Your task to perform on an android device: Open my contact list Image 0: 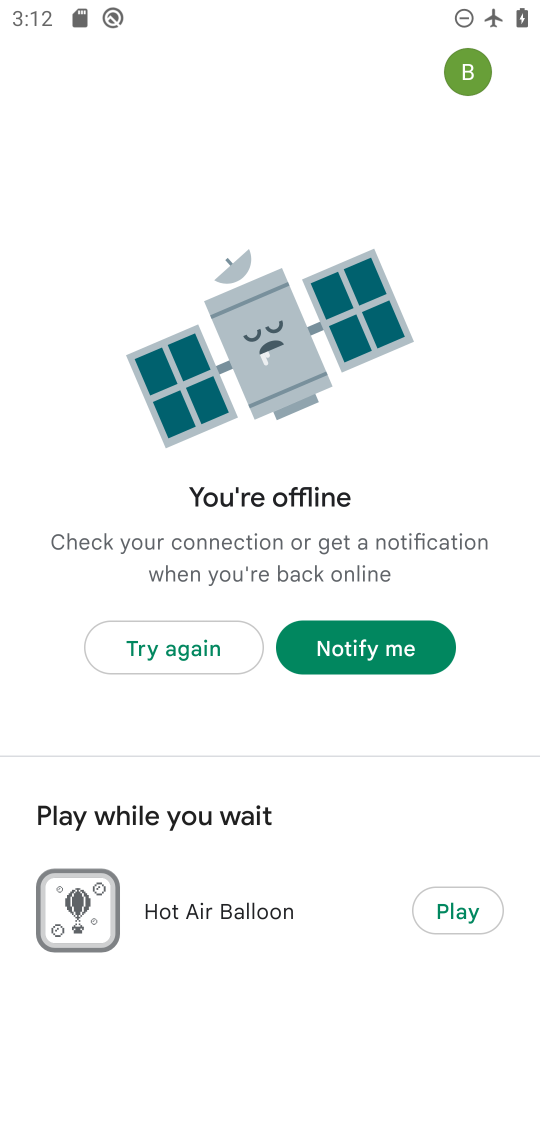
Step 0: press home button
Your task to perform on an android device: Open my contact list Image 1: 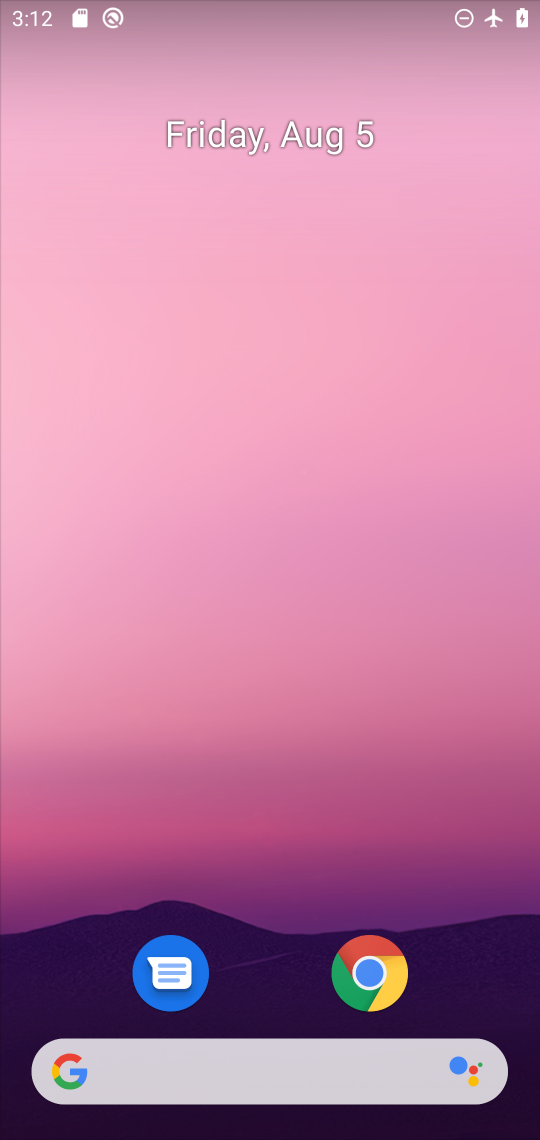
Step 1: drag from (208, 479) to (206, 38)
Your task to perform on an android device: Open my contact list Image 2: 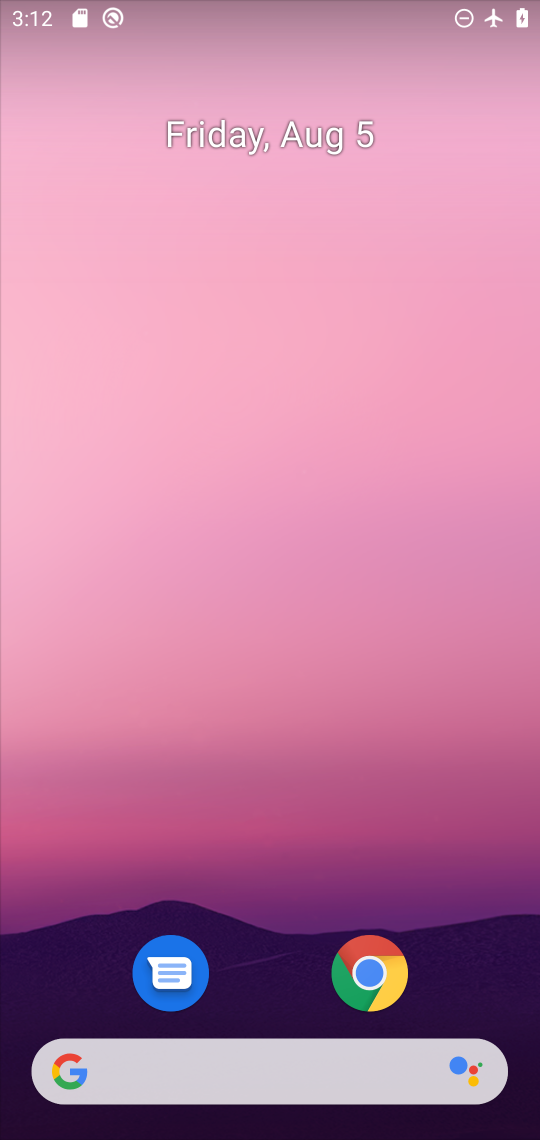
Step 2: drag from (326, 1028) to (287, 97)
Your task to perform on an android device: Open my contact list Image 3: 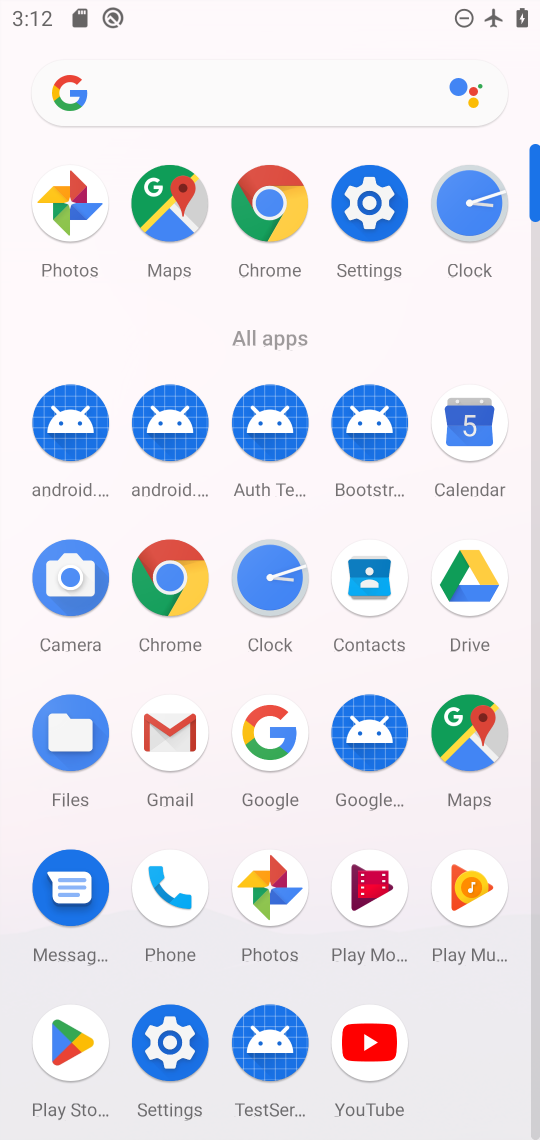
Step 3: click (369, 583)
Your task to perform on an android device: Open my contact list Image 4: 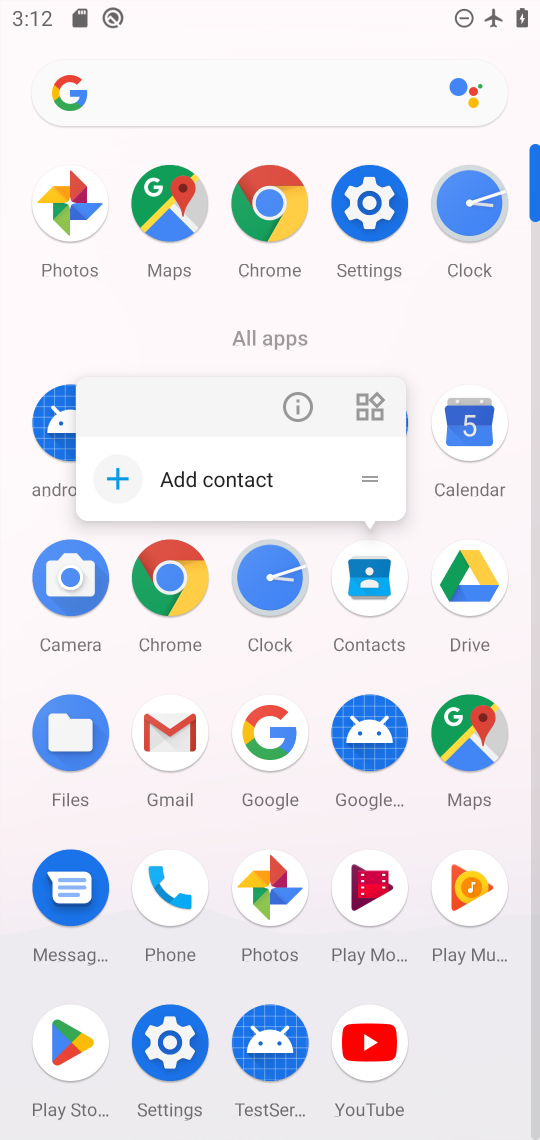
Step 4: click (369, 583)
Your task to perform on an android device: Open my contact list Image 5: 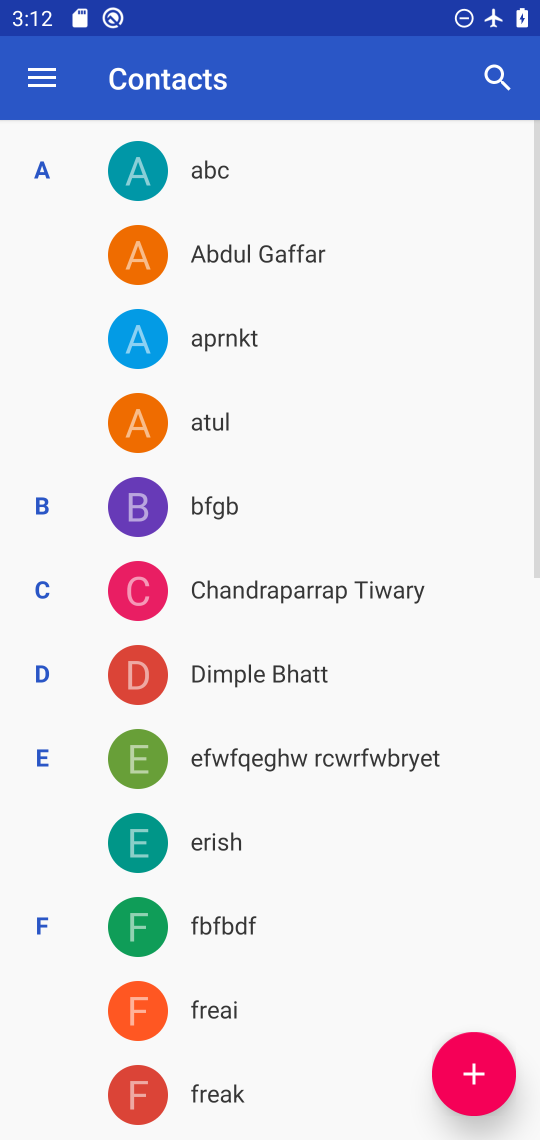
Step 5: task complete